Your task to perform on an android device: open app "YouTube Kids" Image 0: 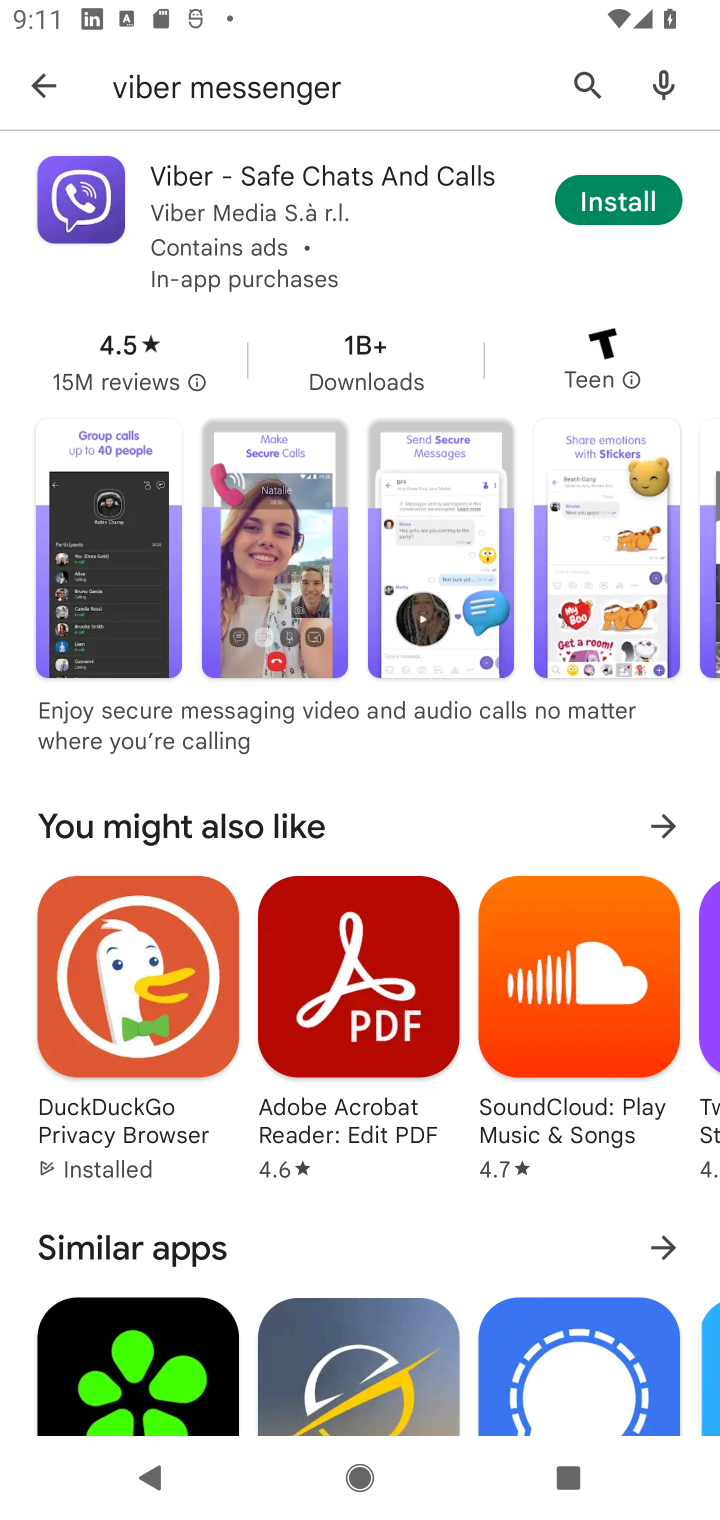
Step 0: press home button
Your task to perform on an android device: open app "YouTube Kids" Image 1: 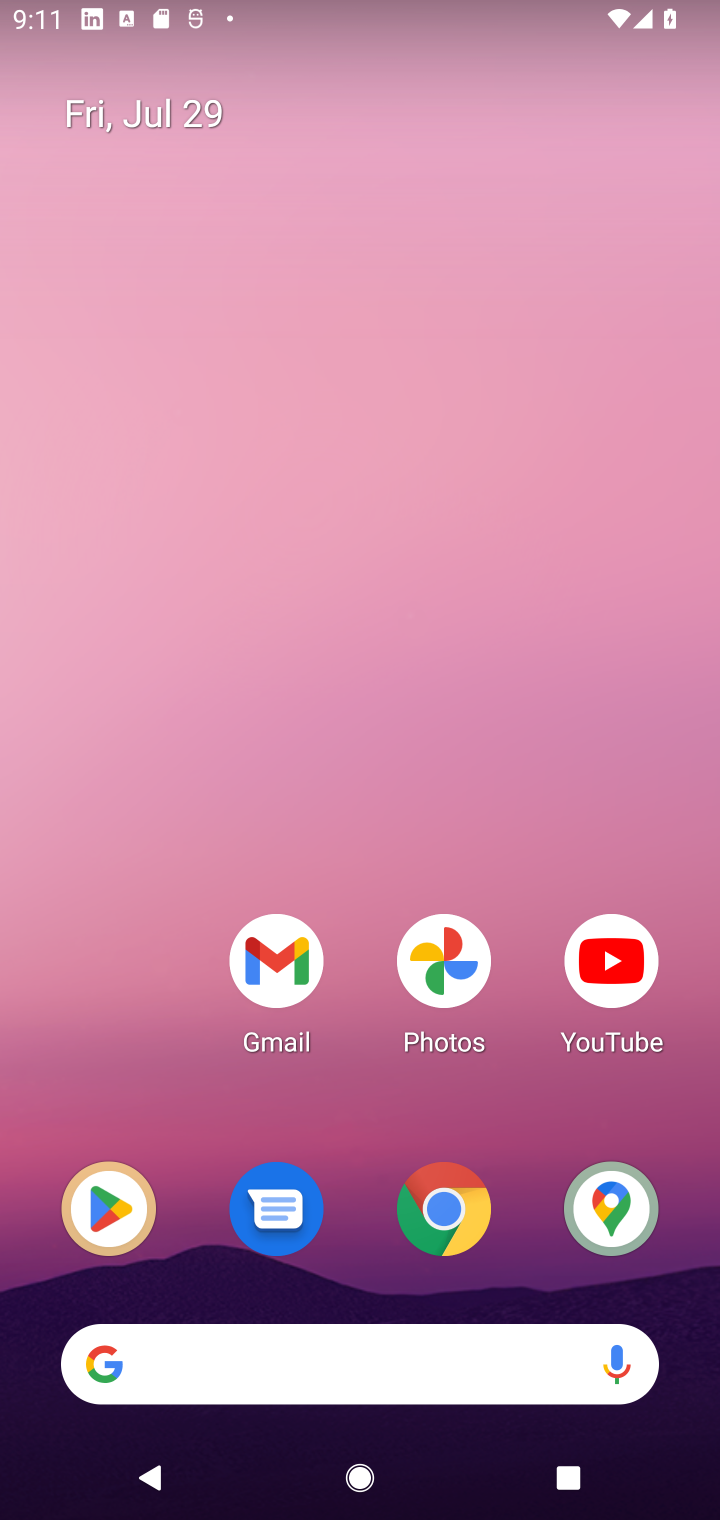
Step 1: click (127, 1205)
Your task to perform on an android device: open app "YouTube Kids" Image 2: 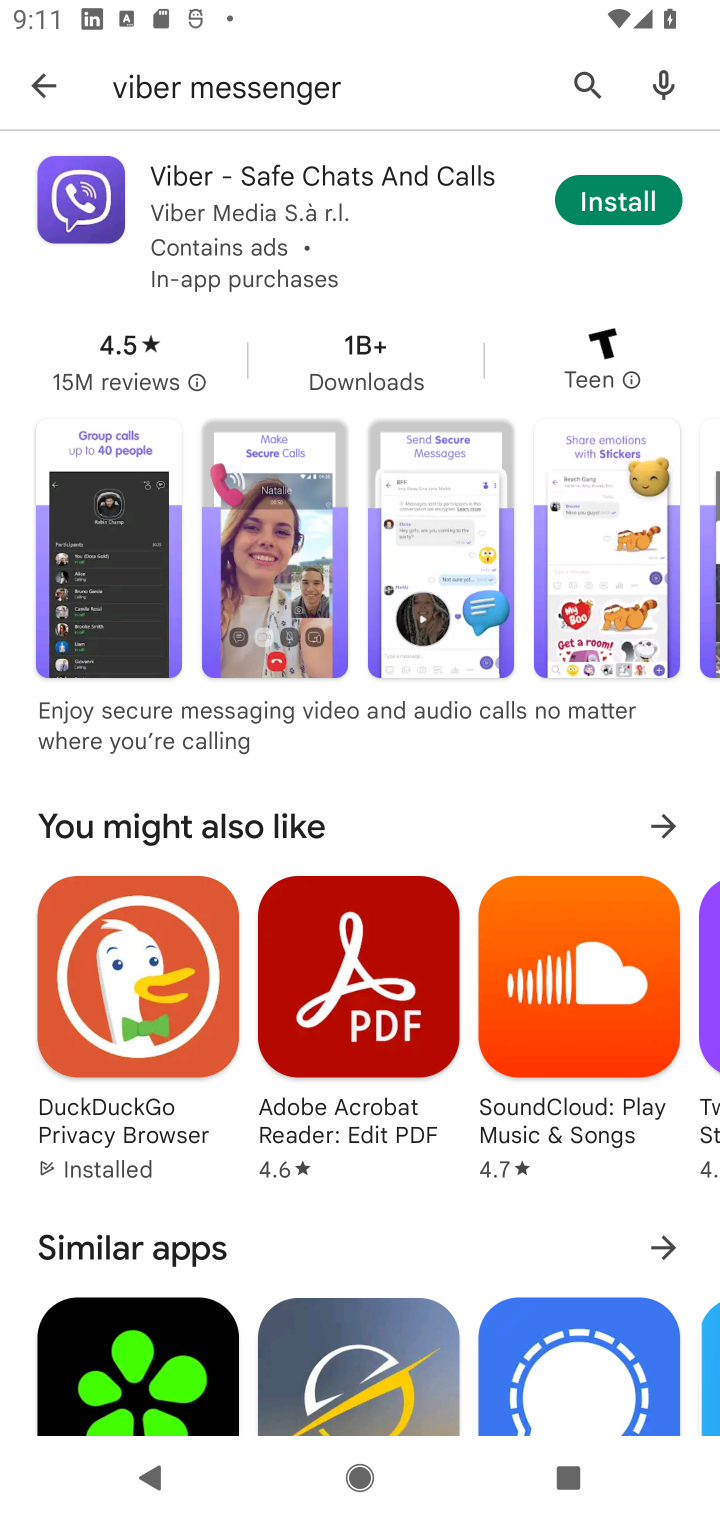
Step 2: click (586, 79)
Your task to perform on an android device: open app "YouTube Kids" Image 3: 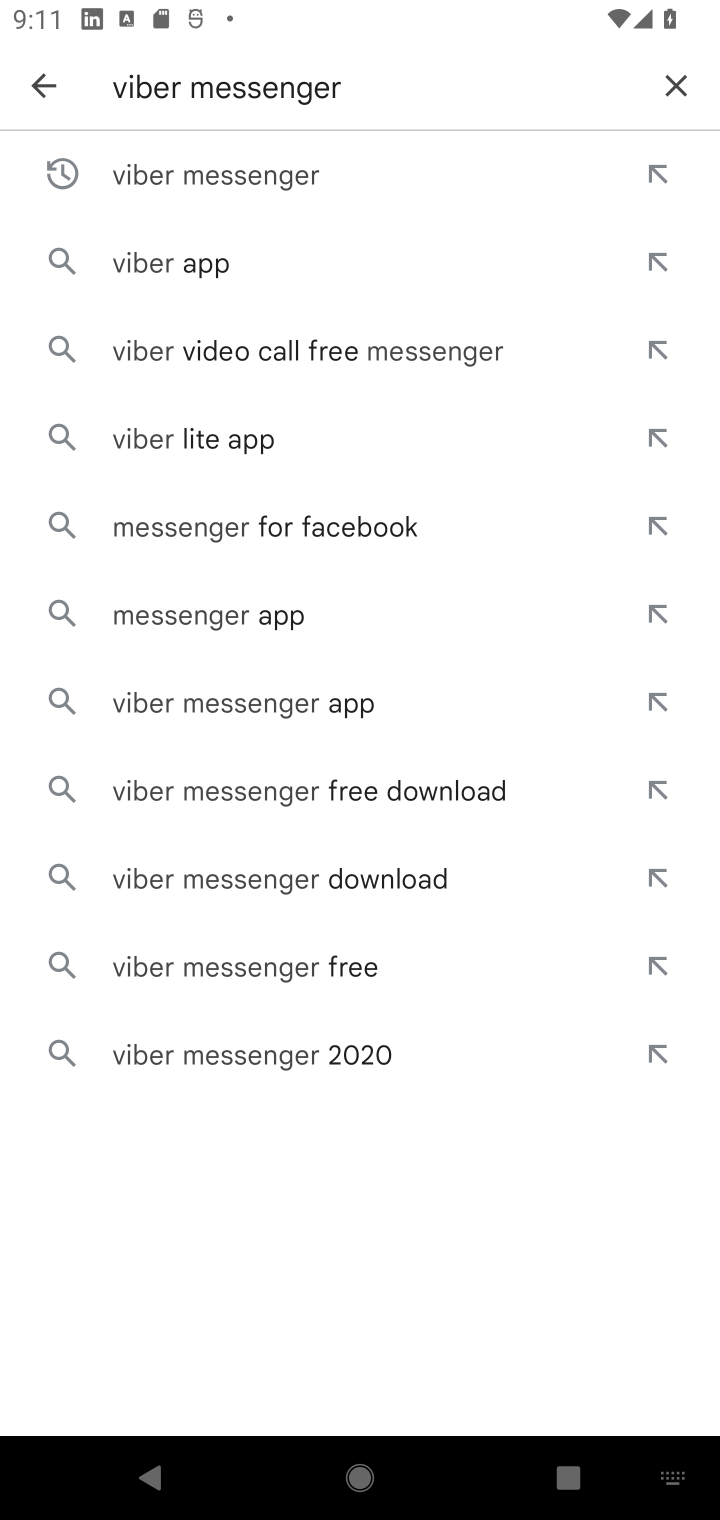
Step 3: click (665, 80)
Your task to perform on an android device: open app "YouTube Kids" Image 4: 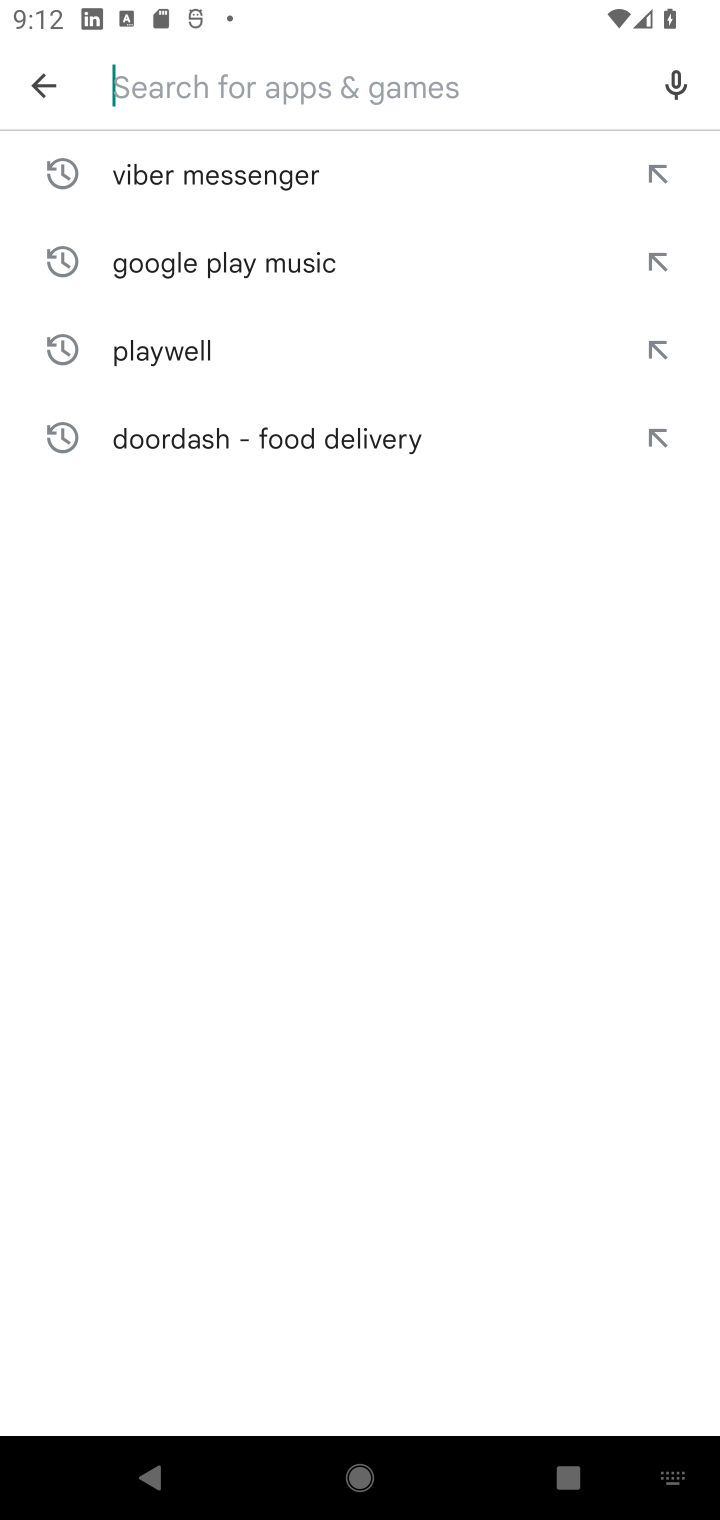
Step 4: type "YouTube Kids"
Your task to perform on an android device: open app "YouTube Kids" Image 5: 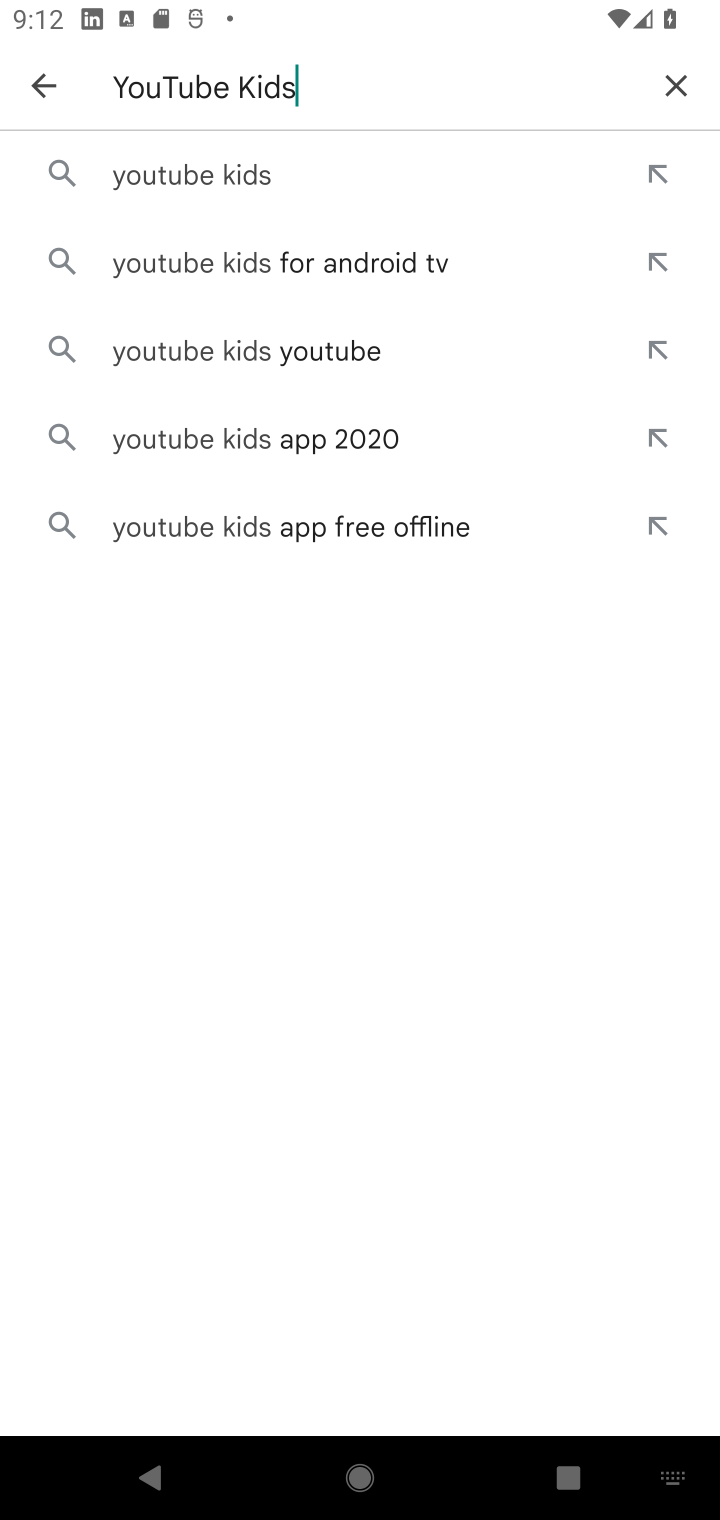
Step 5: click (237, 183)
Your task to perform on an android device: open app "YouTube Kids" Image 6: 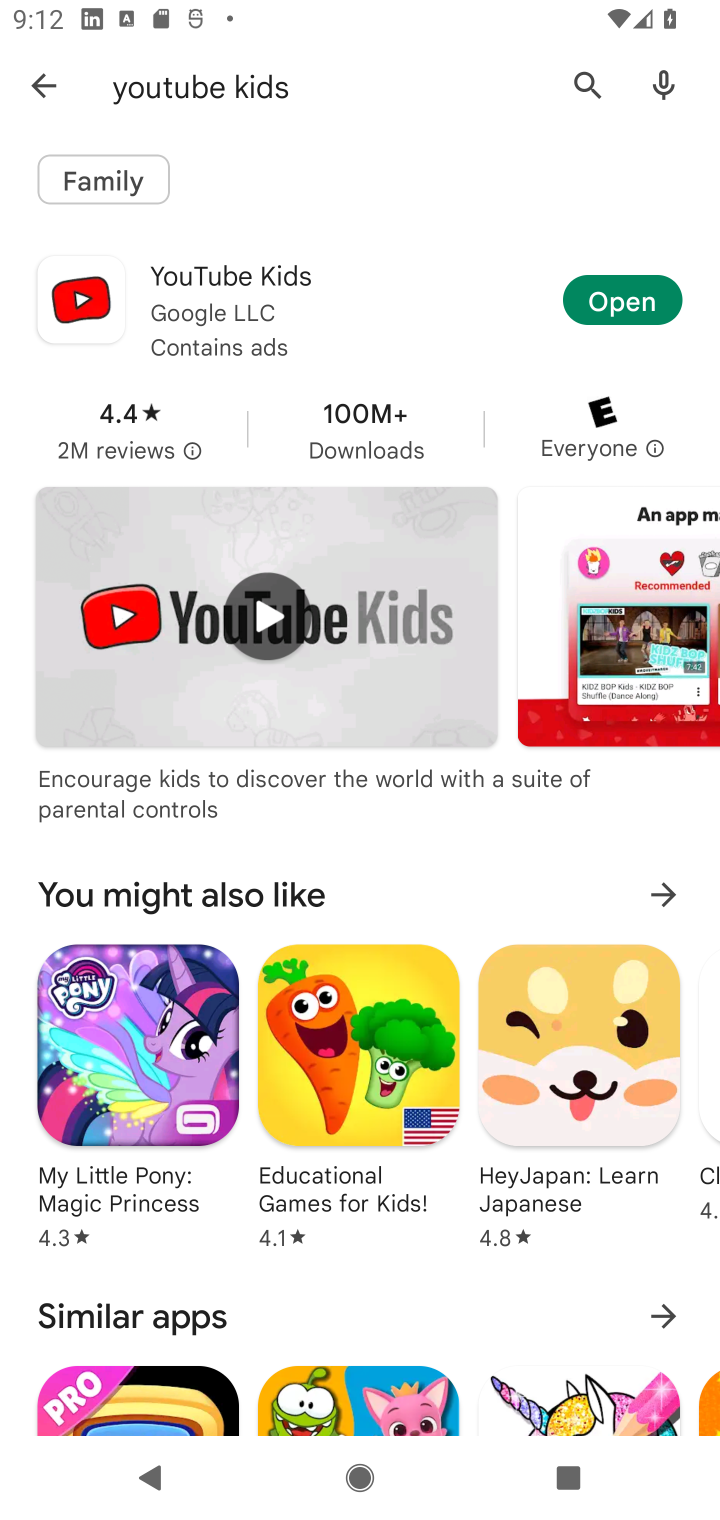
Step 6: click (632, 306)
Your task to perform on an android device: open app "YouTube Kids" Image 7: 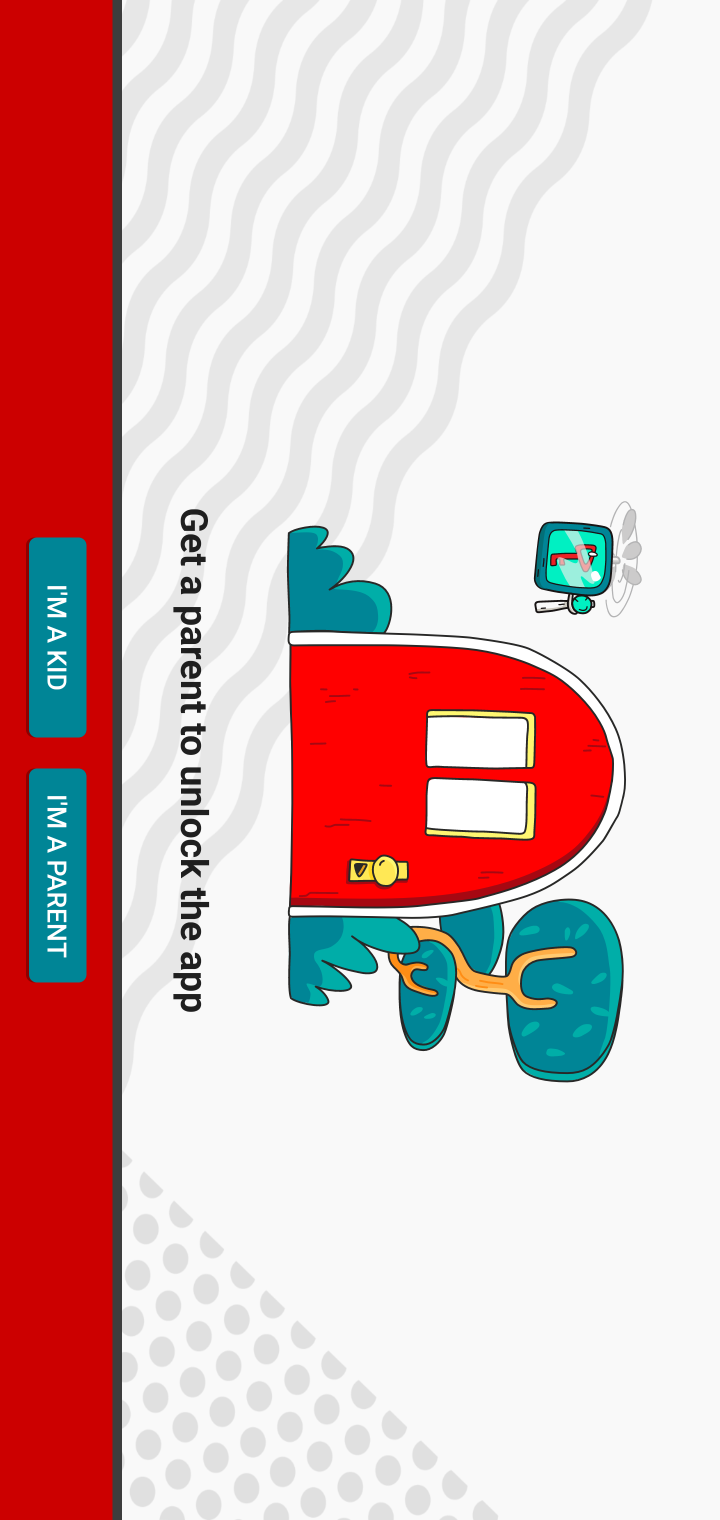
Step 7: task complete